Your task to perform on an android device: Turn off the flashlight Image 0: 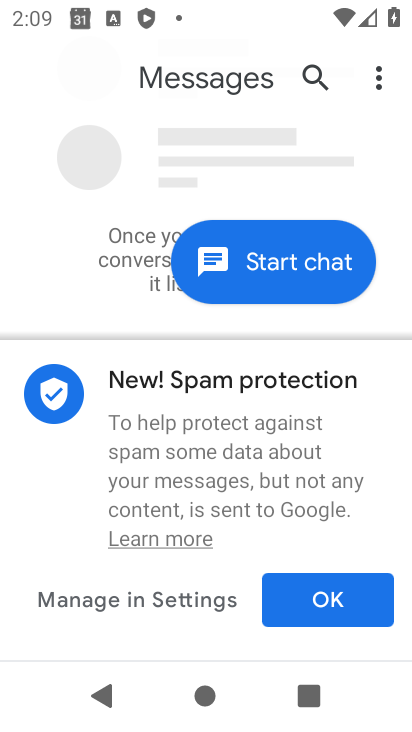
Step 0: press home button
Your task to perform on an android device: Turn off the flashlight Image 1: 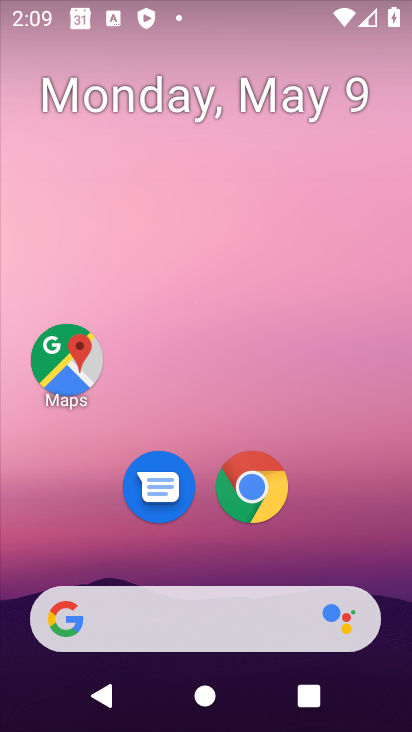
Step 1: drag from (332, 496) to (351, 58)
Your task to perform on an android device: Turn off the flashlight Image 2: 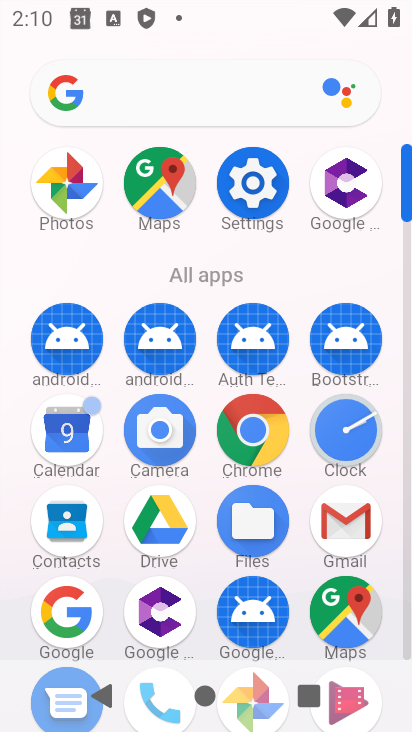
Step 2: click (239, 179)
Your task to perform on an android device: Turn off the flashlight Image 3: 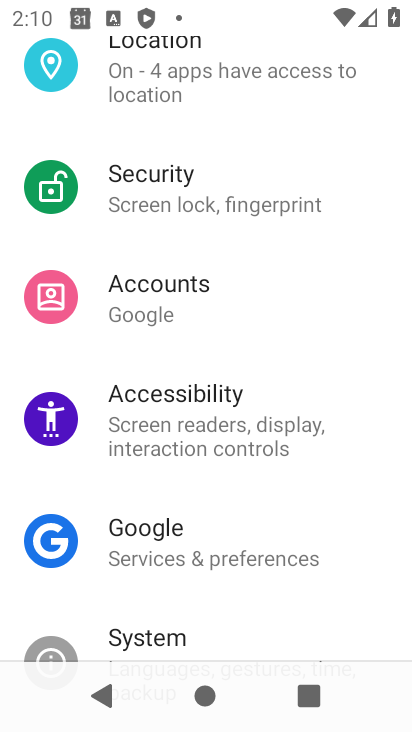
Step 3: drag from (239, 177) to (260, 650)
Your task to perform on an android device: Turn off the flashlight Image 4: 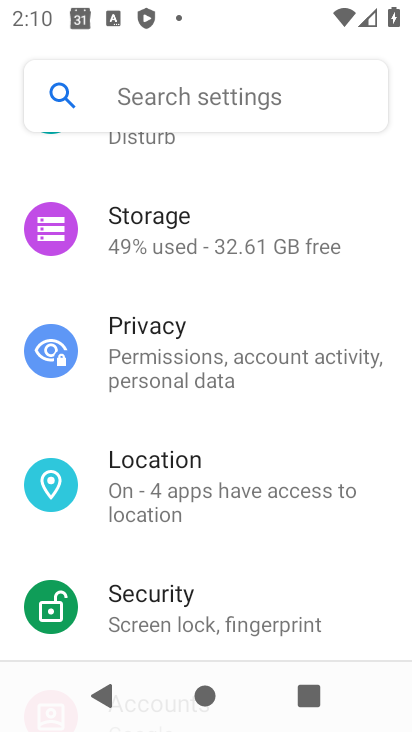
Step 4: drag from (208, 177) to (279, 694)
Your task to perform on an android device: Turn off the flashlight Image 5: 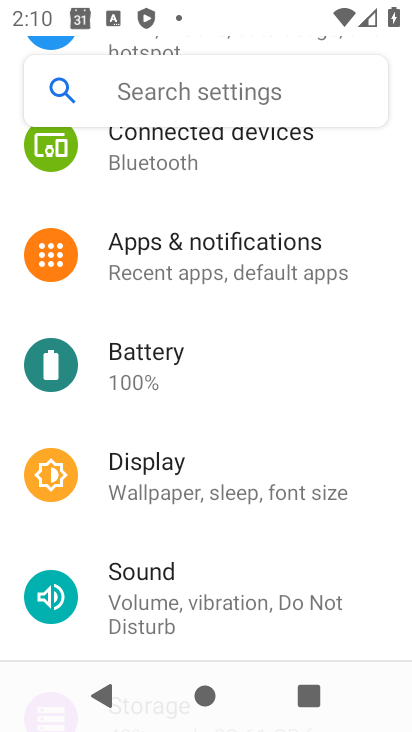
Step 5: drag from (250, 210) to (308, 665)
Your task to perform on an android device: Turn off the flashlight Image 6: 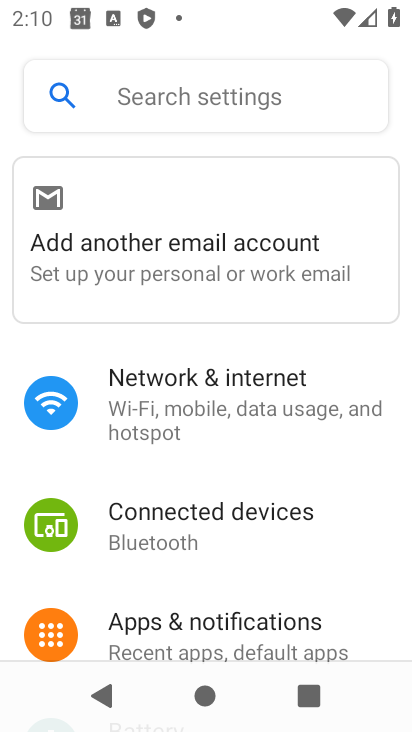
Step 6: click (220, 83)
Your task to perform on an android device: Turn off the flashlight Image 7: 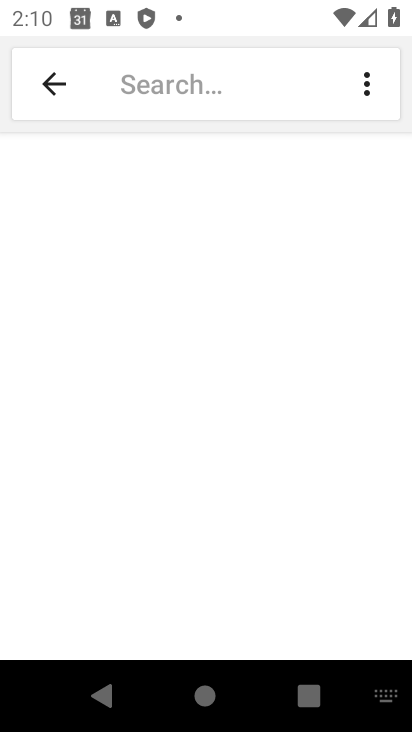
Step 7: type "Flashlight"
Your task to perform on an android device: Turn off the flashlight Image 8: 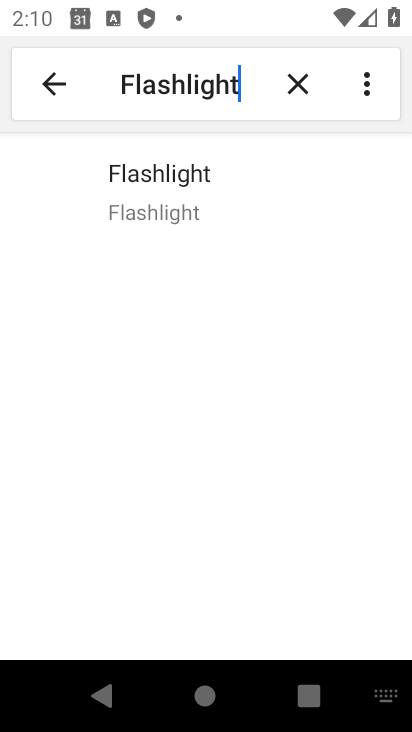
Step 8: click (160, 161)
Your task to perform on an android device: Turn off the flashlight Image 9: 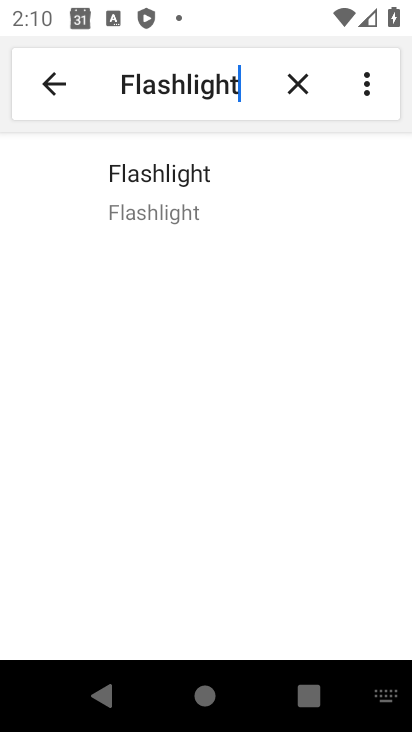
Step 9: click (169, 184)
Your task to perform on an android device: Turn off the flashlight Image 10: 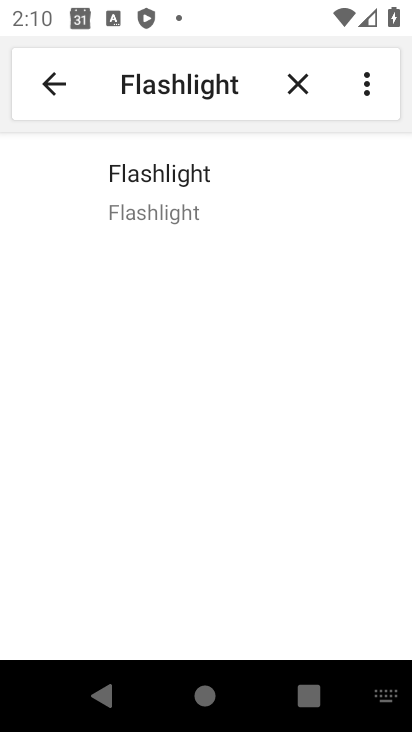
Step 10: task complete